Your task to perform on an android device: How big is a tiger? Image 0: 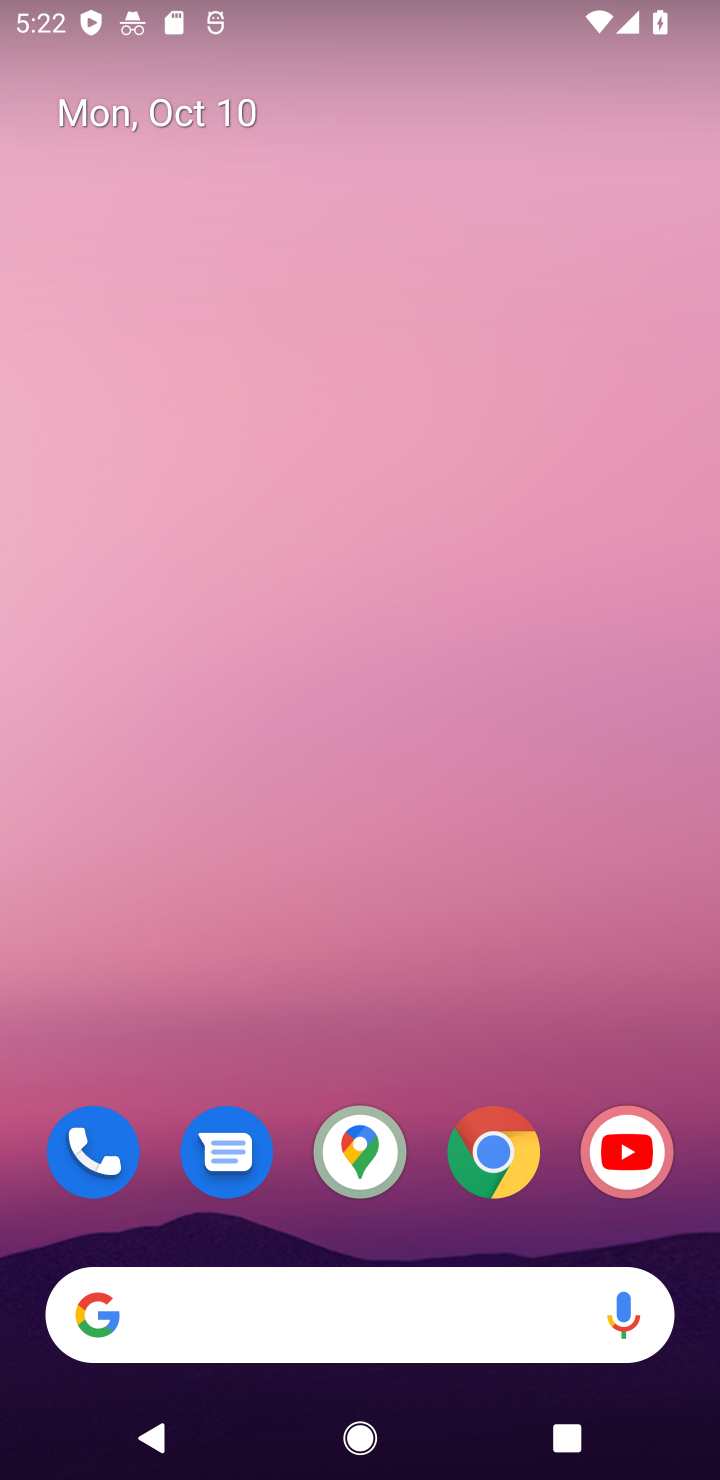
Step 0: click (493, 1151)
Your task to perform on an android device: How big is a tiger? Image 1: 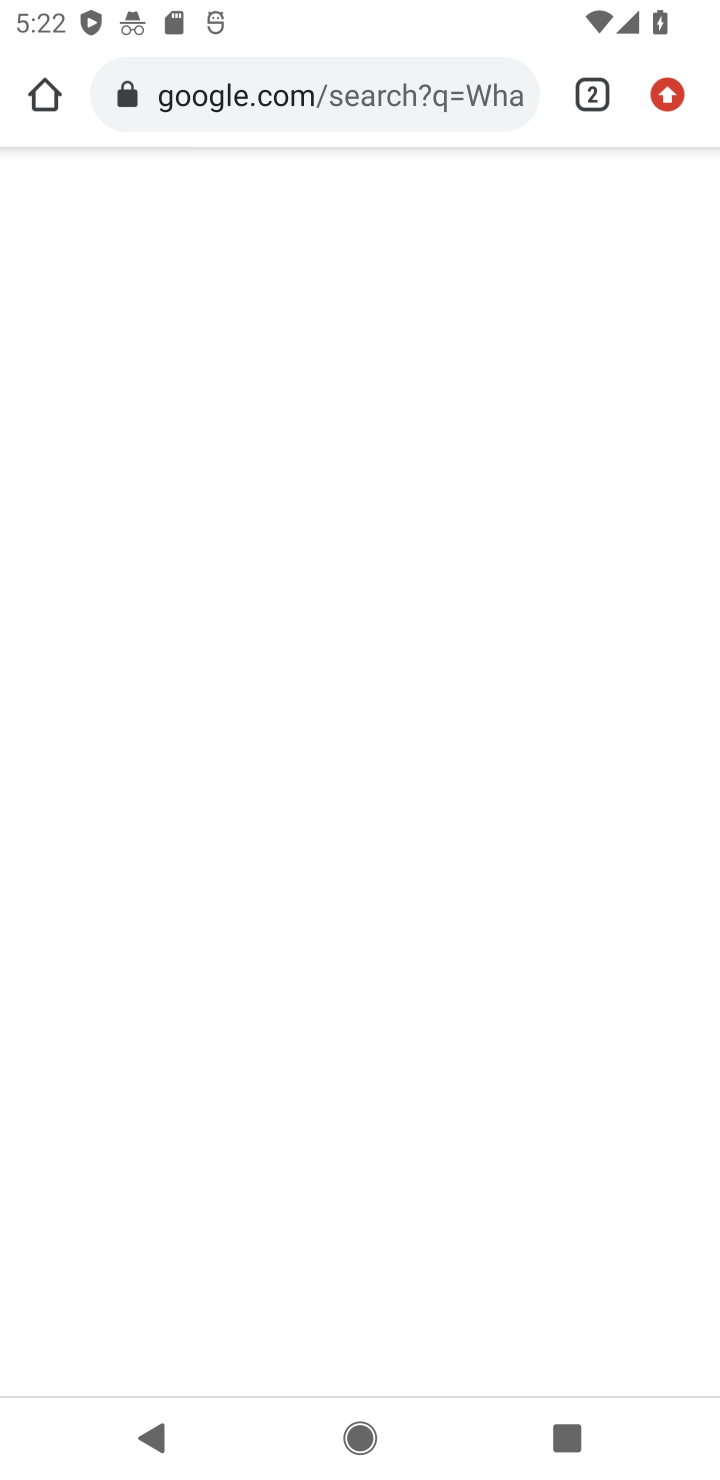
Step 1: click (365, 124)
Your task to perform on an android device: How big is a tiger? Image 2: 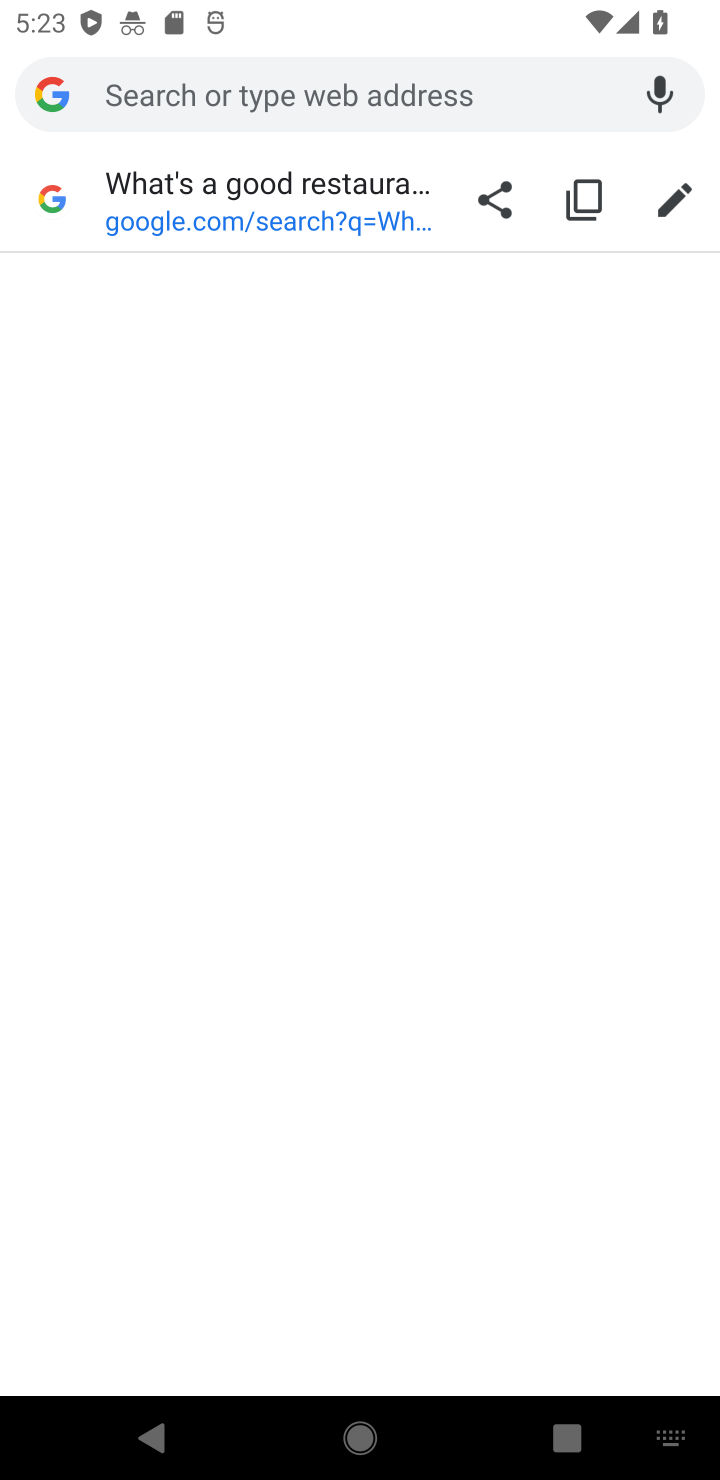
Step 2: type "How big is a tiger?"
Your task to perform on an android device: How big is a tiger? Image 3: 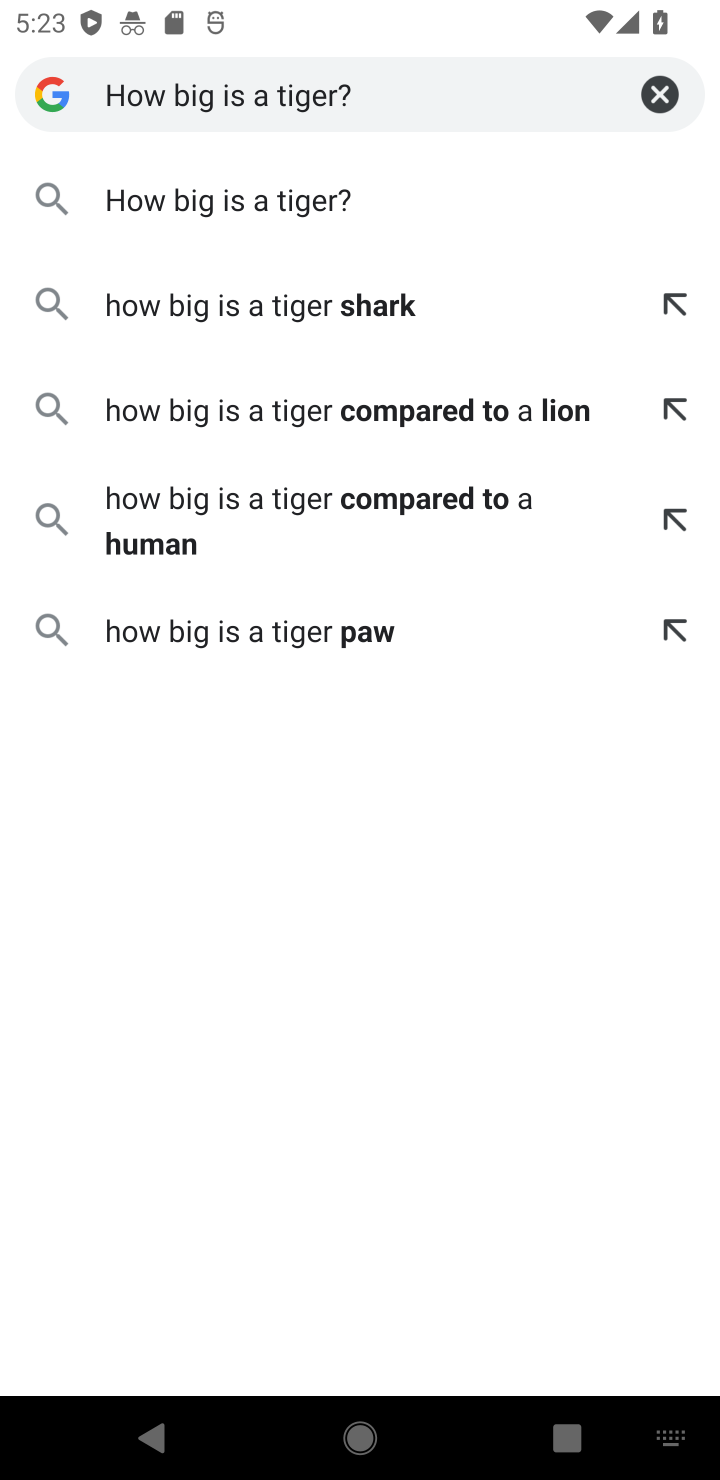
Step 3: click (286, 200)
Your task to perform on an android device: How big is a tiger? Image 4: 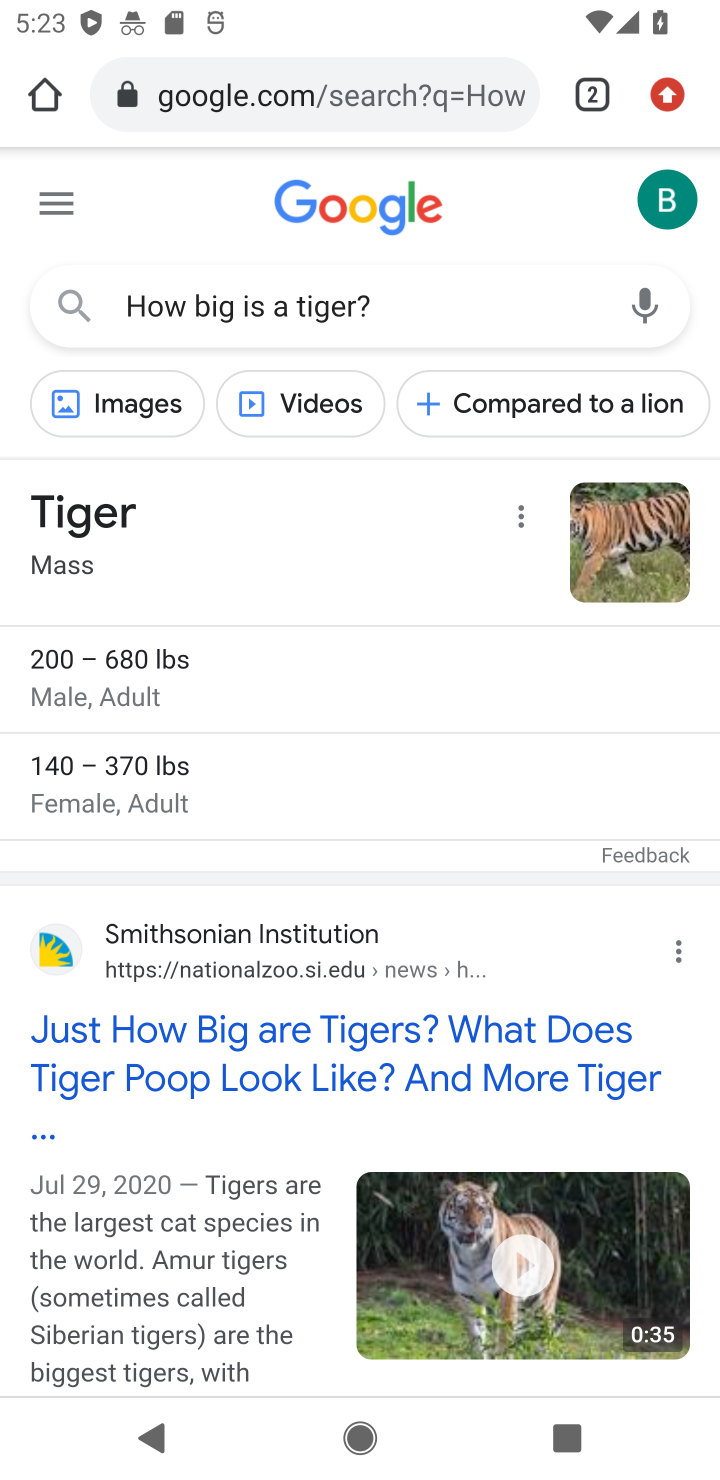
Step 4: task complete